Your task to perform on an android device: turn on sleep mode Image 0: 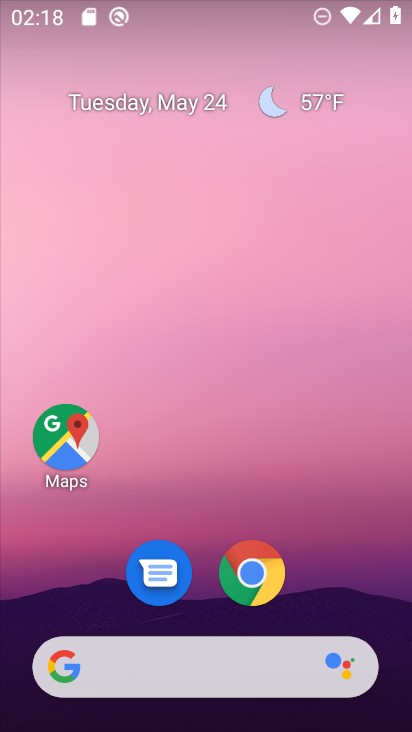
Step 0: drag from (364, 571) to (325, 82)
Your task to perform on an android device: turn on sleep mode Image 1: 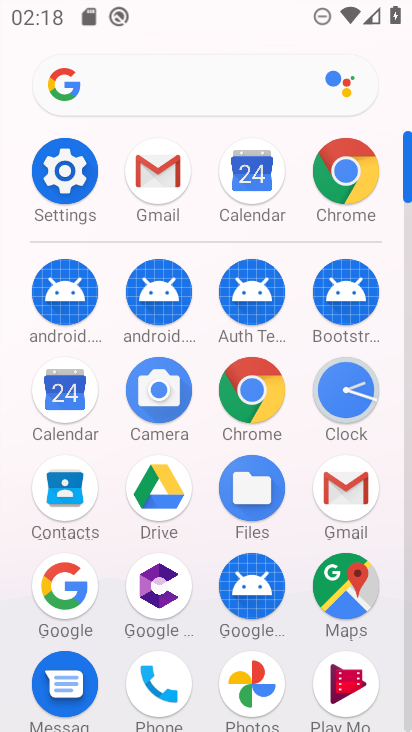
Step 1: click (89, 167)
Your task to perform on an android device: turn on sleep mode Image 2: 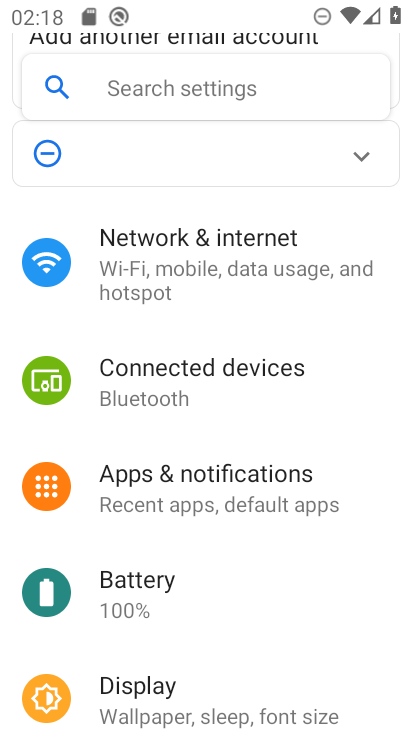
Step 2: click (237, 80)
Your task to perform on an android device: turn on sleep mode Image 3: 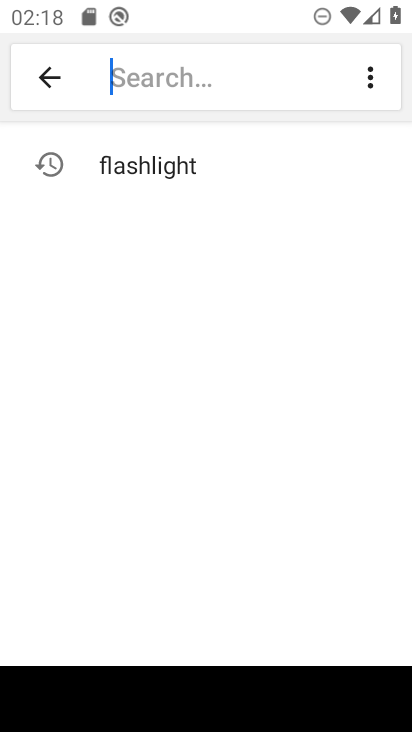
Step 3: type "sleep mode"
Your task to perform on an android device: turn on sleep mode Image 4: 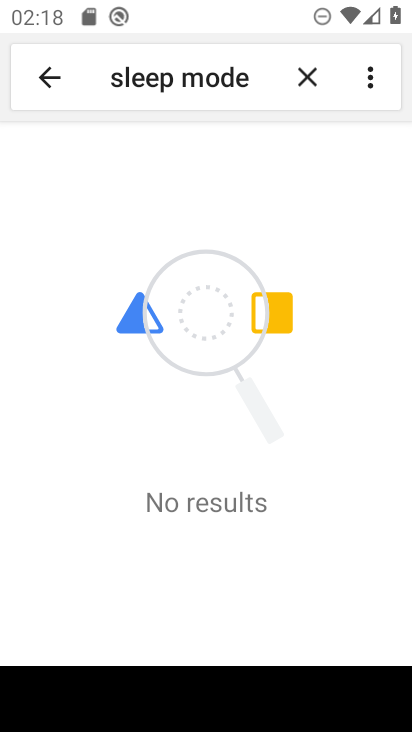
Step 4: task complete